Your task to perform on an android device: turn on priority inbox in the gmail app Image 0: 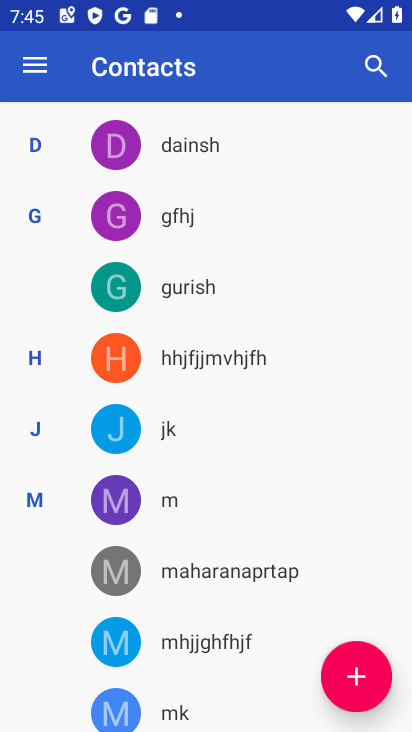
Step 0: press home button
Your task to perform on an android device: turn on priority inbox in the gmail app Image 1: 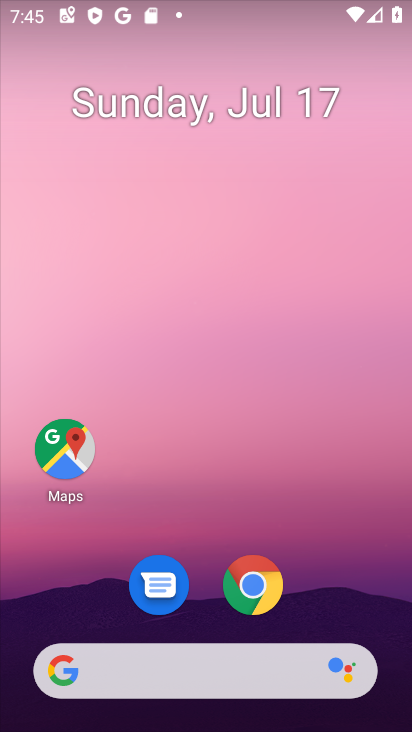
Step 1: drag from (336, 613) to (234, 33)
Your task to perform on an android device: turn on priority inbox in the gmail app Image 2: 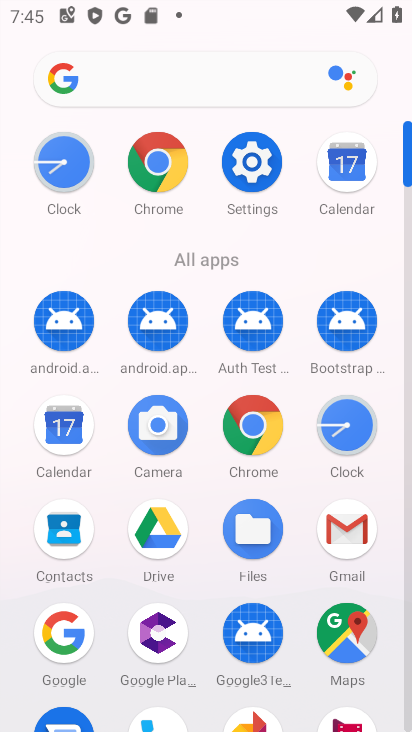
Step 2: click (349, 525)
Your task to perform on an android device: turn on priority inbox in the gmail app Image 3: 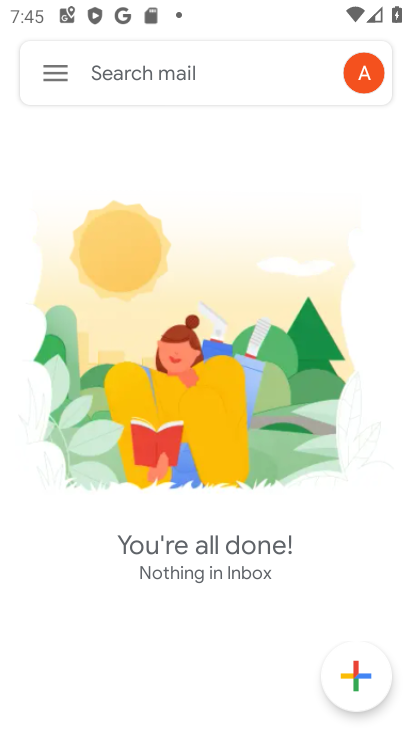
Step 3: click (54, 74)
Your task to perform on an android device: turn on priority inbox in the gmail app Image 4: 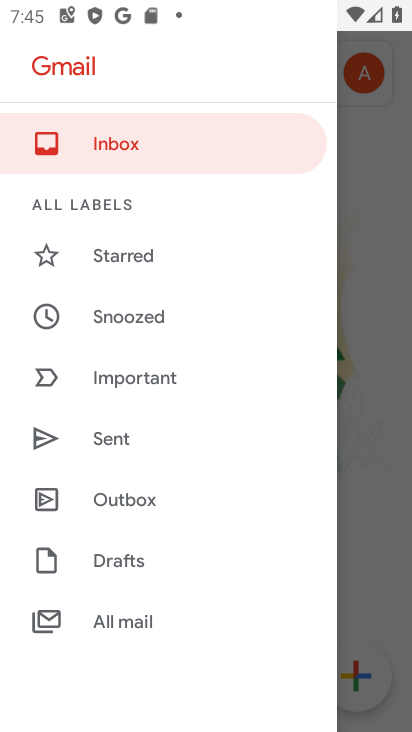
Step 4: drag from (168, 594) to (204, 156)
Your task to perform on an android device: turn on priority inbox in the gmail app Image 5: 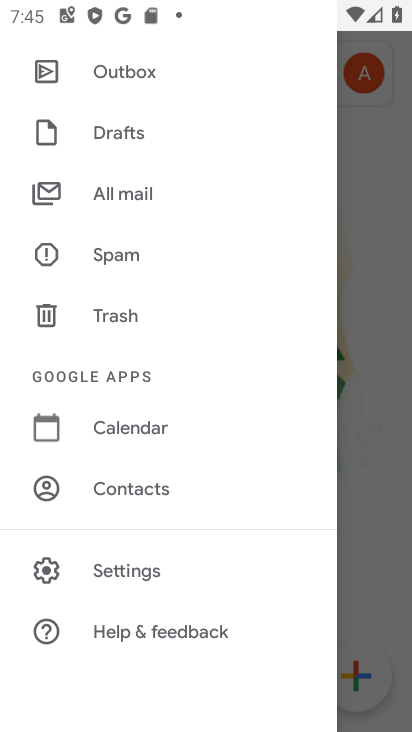
Step 5: click (146, 570)
Your task to perform on an android device: turn on priority inbox in the gmail app Image 6: 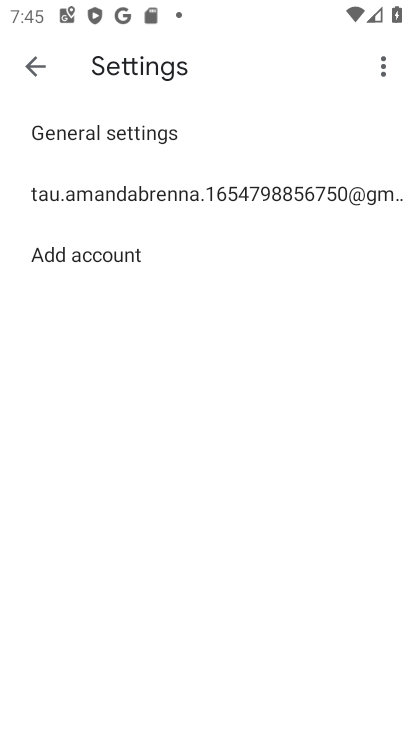
Step 6: click (230, 179)
Your task to perform on an android device: turn on priority inbox in the gmail app Image 7: 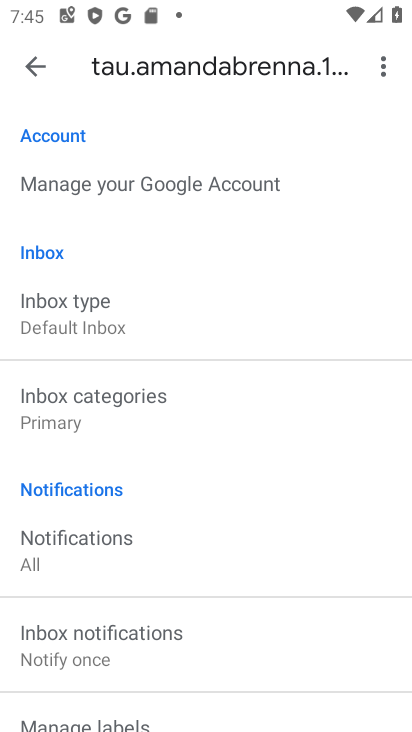
Step 7: click (87, 322)
Your task to perform on an android device: turn on priority inbox in the gmail app Image 8: 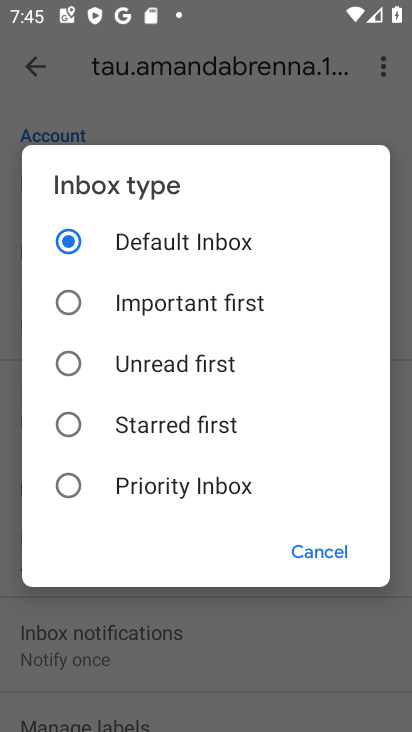
Step 8: click (69, 491)
Your task to perform on an android device: turn on priority inbox in the gmail app Image 9: 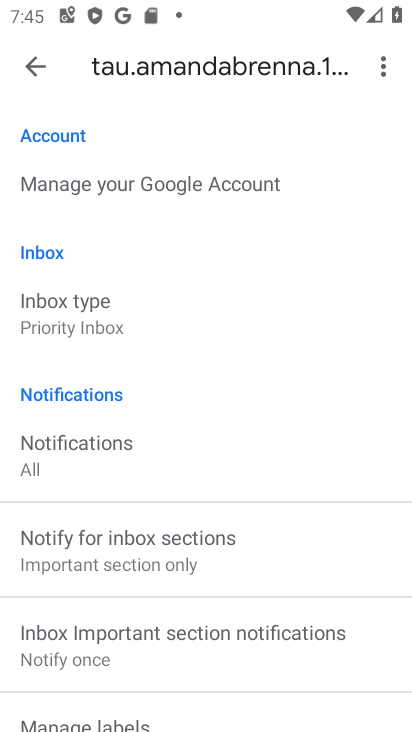
Step 9: task complete